Your task to perform on an android device: toggle location history Image 0: 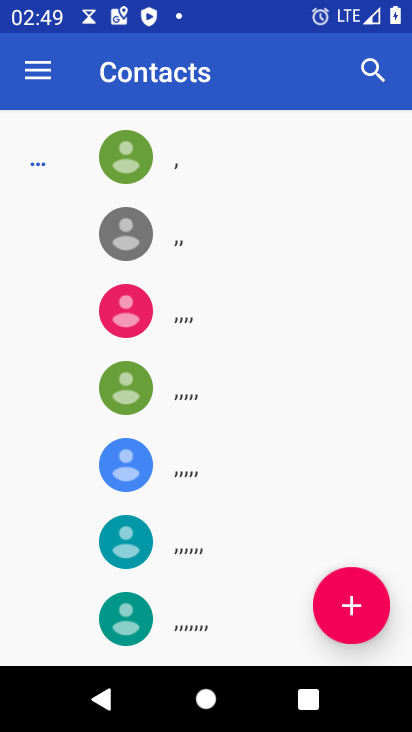
Step 0: press home button
Your task to perform on an android device: toggle location history Image 1: 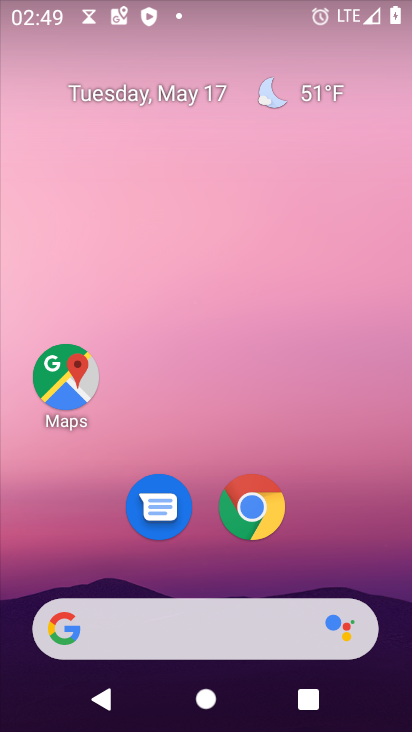
Step 1: drag from (193, 569) to (221, 157)
Your task to perform on an android device: toggle location history Image 2: 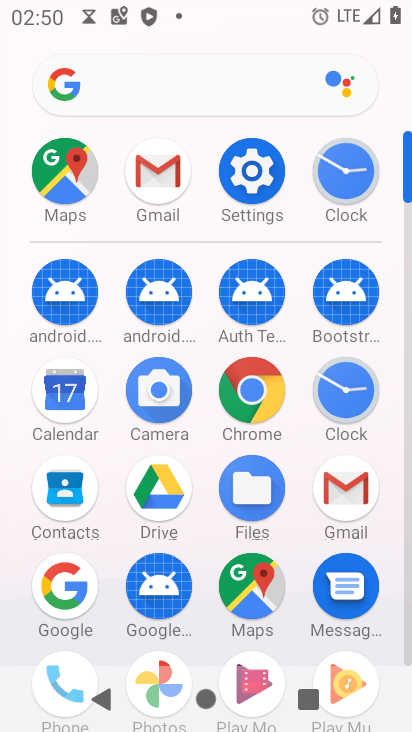
Step 2: click (255, 166)
Your task to perform on an android device: toggle location history Image 3: 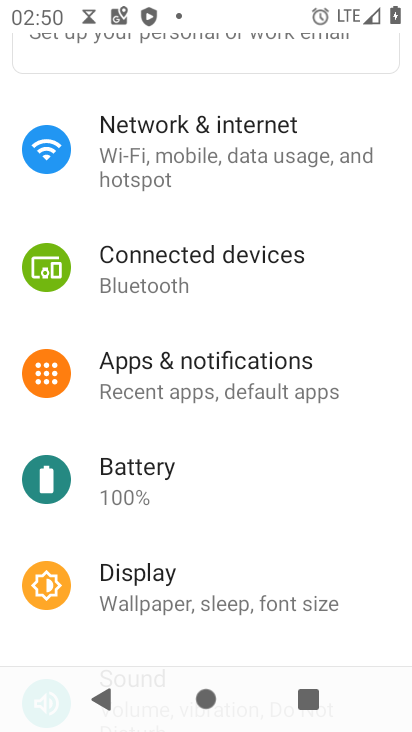
Step 3: drag from (135, 608) to (174, 344)
Your task to perform on an android device: toggle location history Image 4: 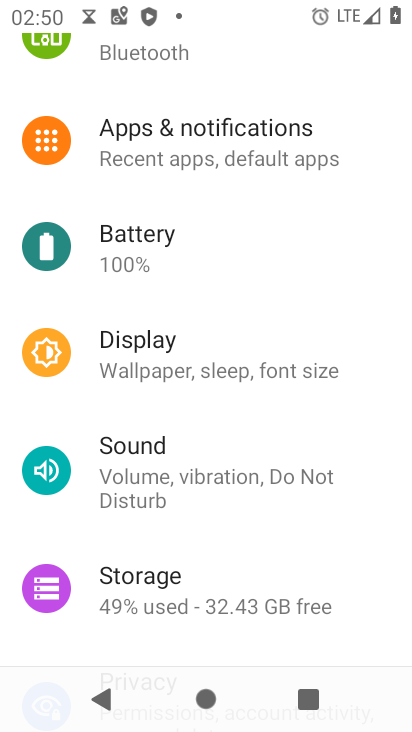
Step 4: drag from (166, 567) to (164, 350)
Your task to perform on an android device: toggle location history Image 5: 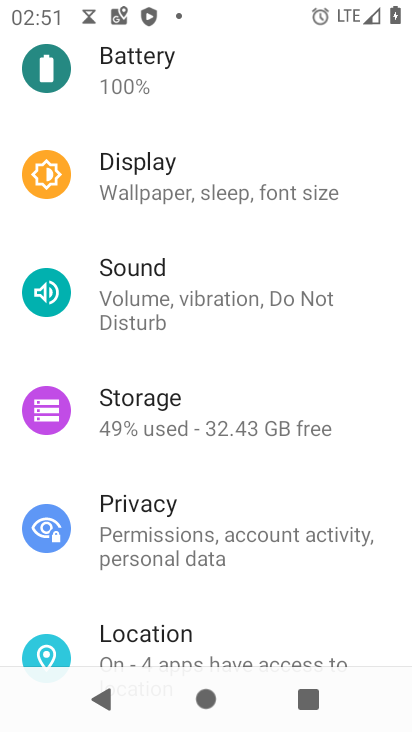
Step 5: click (141, 625)
Your task to perform on an android device: toggle location history Image 6: 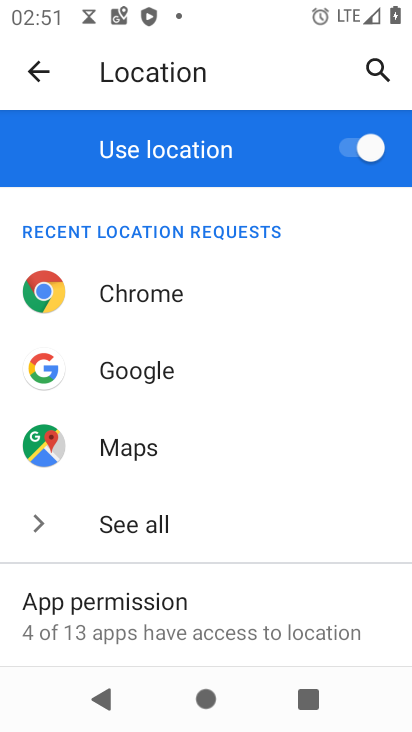
Step 6: drag from (182, 609) to (164, 317)
Your task to perform on an android device: toggle location history Image 7: 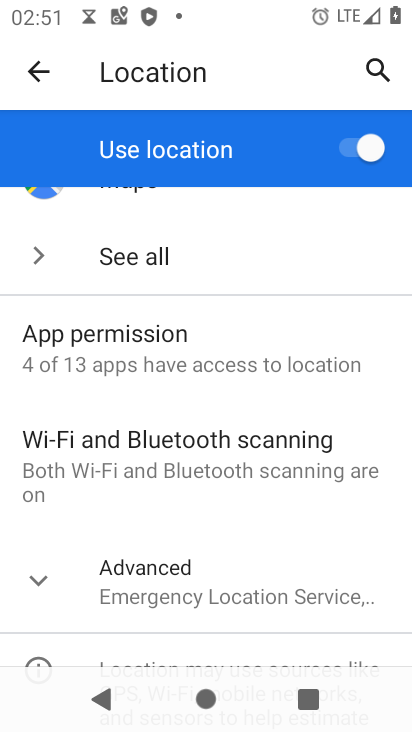
Step 7: click (141, 576)
Your task to perform on an android device: toggle location history Image 8: 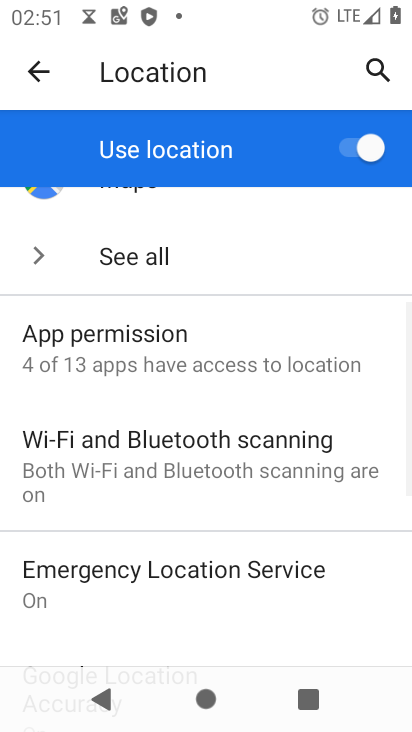
Step 8: drag from (140, 571) to (132, 358)
Your task to perform on an android device: toggle location history Image 9: 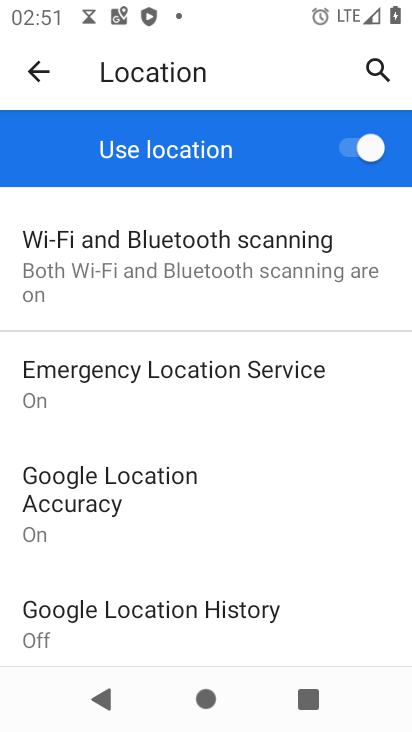
Step 9: click (128, 616)
Your task to perform on an android device: toggle location history Image 10: 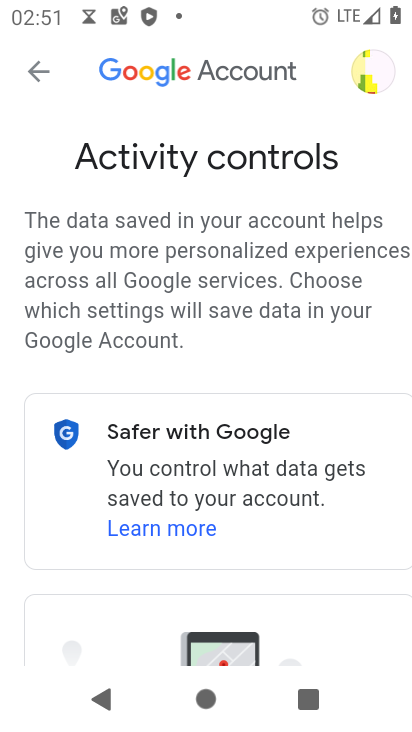
Step 10: drag from (155, 610) to (161, 188)
Your task to perform on an android device: toggle location history Image 11: 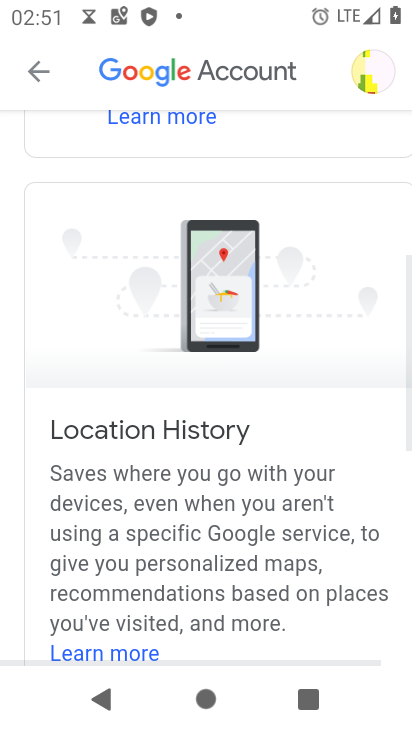
Step 11: drag from (251, 554) to (208, 288)
Your task to perform on an android device: toggle location history Image 12: 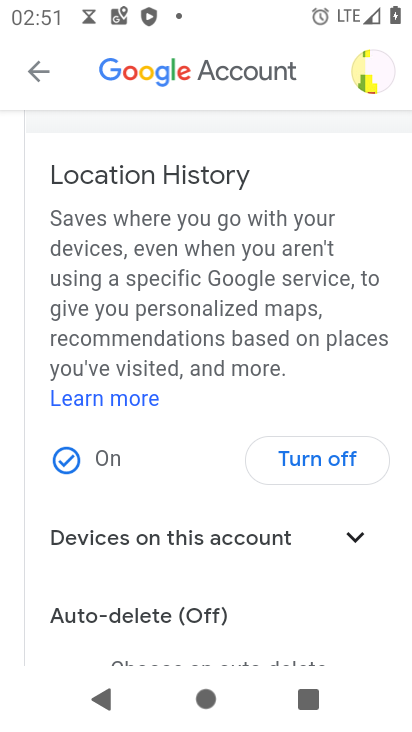
Step 12: click (309, 458)
Your task to perform on an android device: toggle location history Image 13: 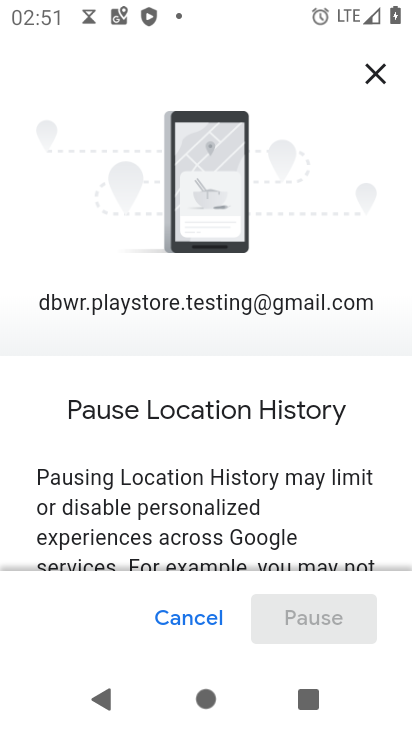
Step 13: drag from (291, 525) to (239, 188)
Your task to perform on an android device: toggle location history Image 14: 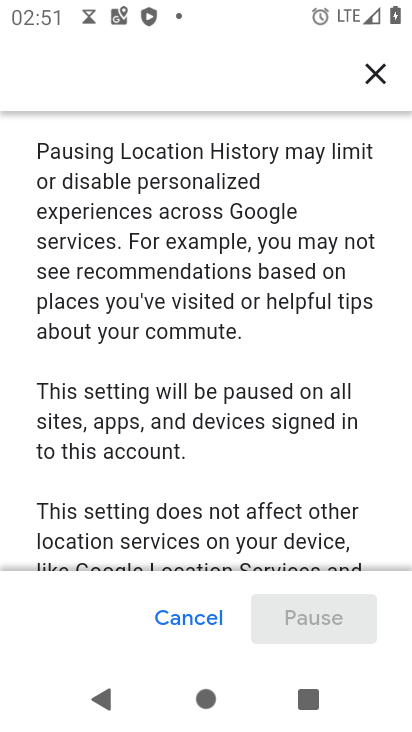
Step 14: drag from (236, 499) to (195, 230)
Your task to perform on an android device: toggle location history Image 15: 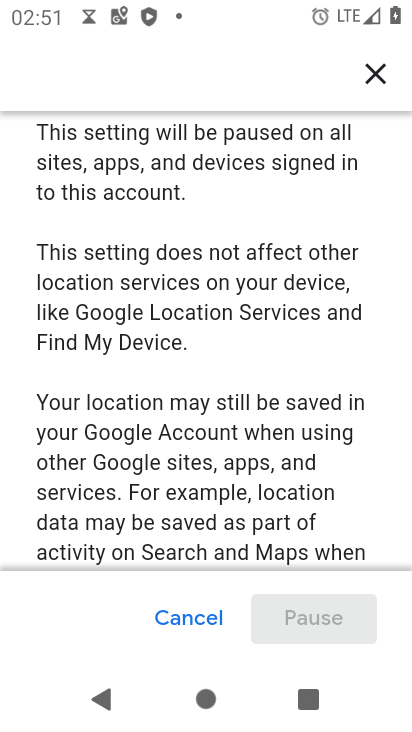
Step 15: drag from (201, 488) to (195, 115)
Your task to perform on an android device: toggle location history Image 16: 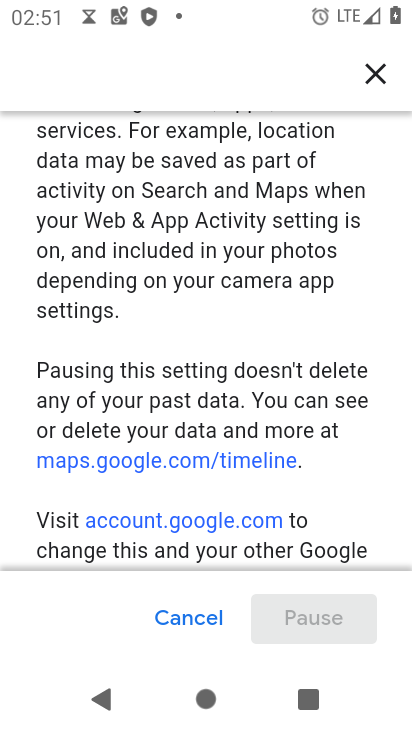
Step 16: drag from (184, 497) to (182, 178)
Your task to perform on an android device: toggle location history Image 17: 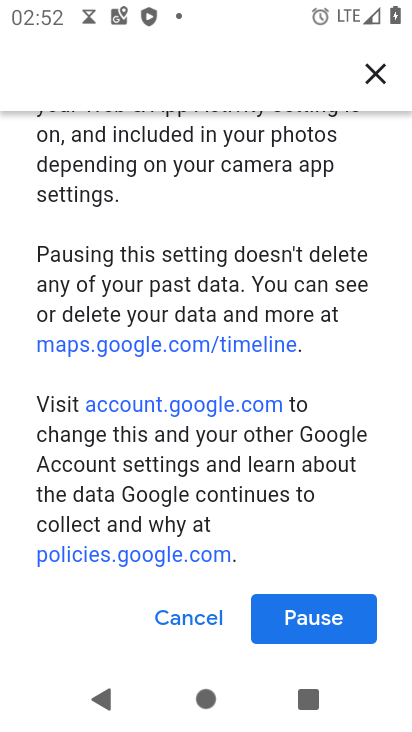
Step 17: click (303, 618)
Your task to perform on an android device: toggle location history Image 18: 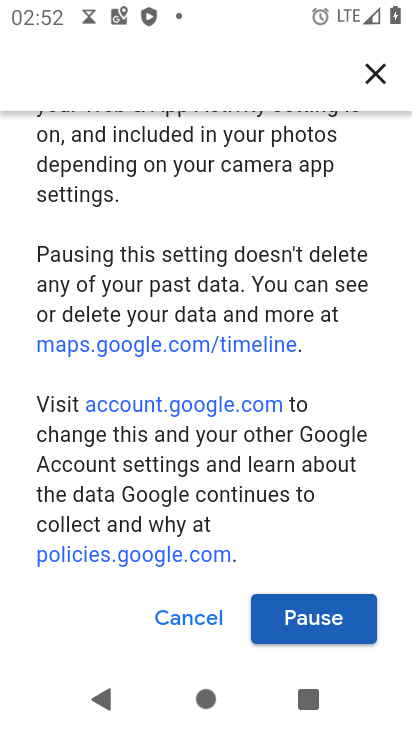
Step 18: click (314, 618)
Your task to perform on an android device: toggle location history Image 19: 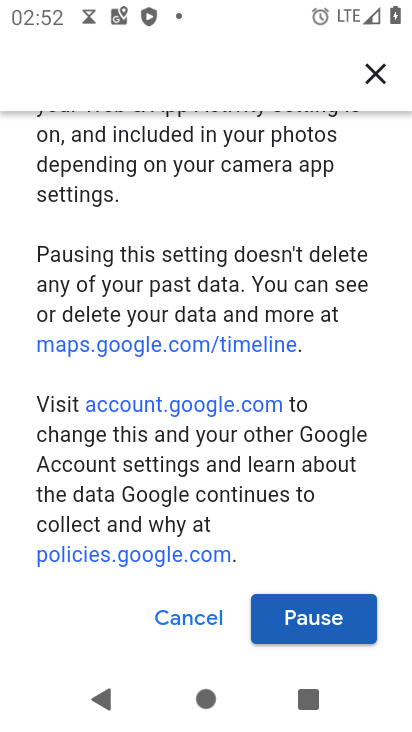
Step 19: click (314, 605)
Your task to perform on an android device: toggle location history Image 20: 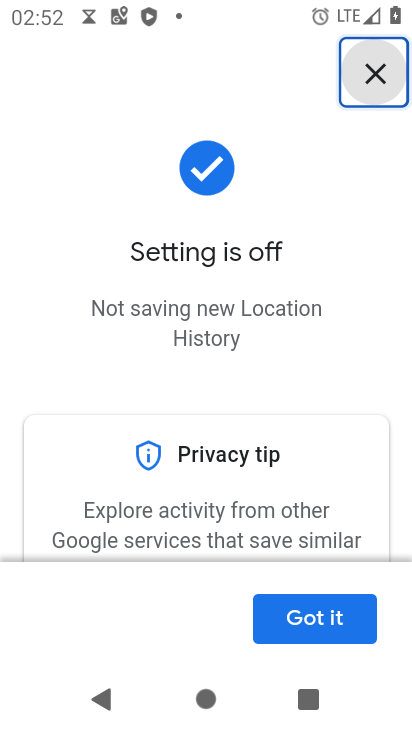
Step 20: task complete